Your task to perform on an android device: turn off location Image 0: 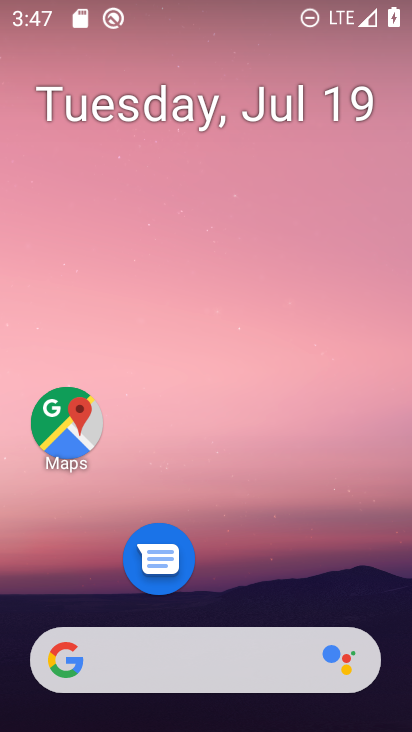
Step 0: drag from (260, 653) to (401, 1)
Your task to perform on an android device: turn off location Image 1: 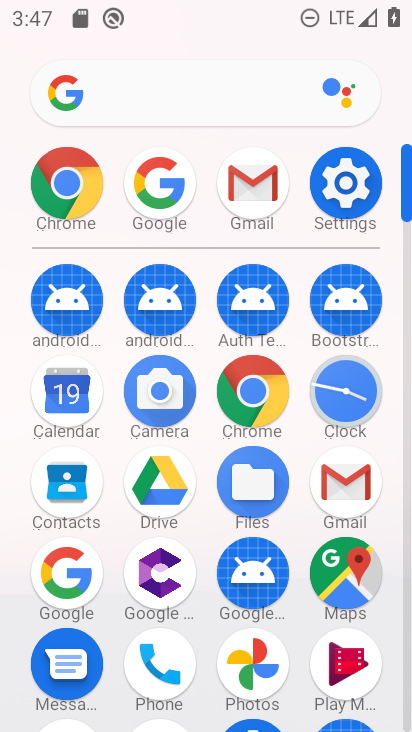
Step 1: click (348, 201)
Your task to perform on an android device: turn off location Image 2: 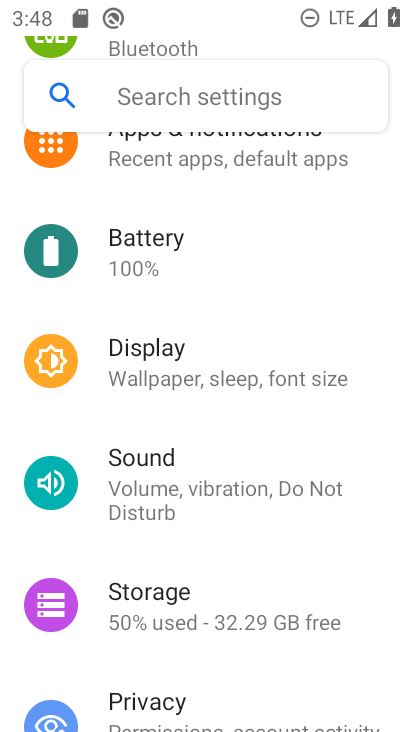
Step 2: drag from (224, 510) to (312, 174)
Your task to perform on an android device: turn off location Image 3: 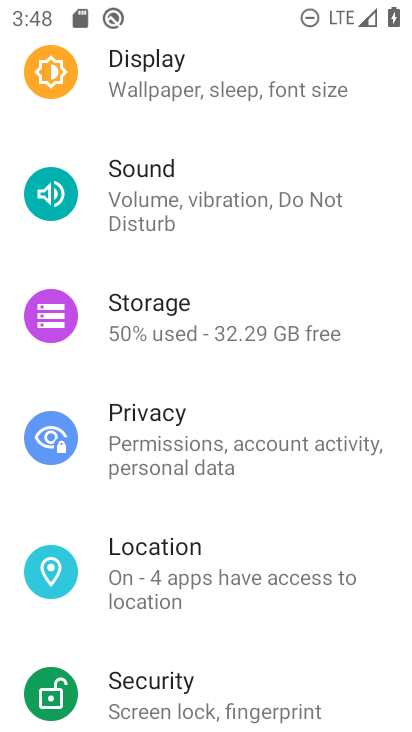
Step 3: click (243, 568)
Your task to perform on an android device: turn off location Image 4: 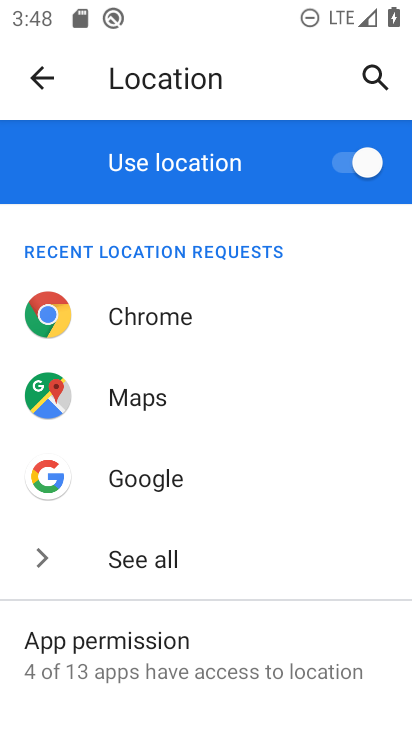
Step 4: click (337, 178)
Your task to perform on an android device: turn off location Image 5: 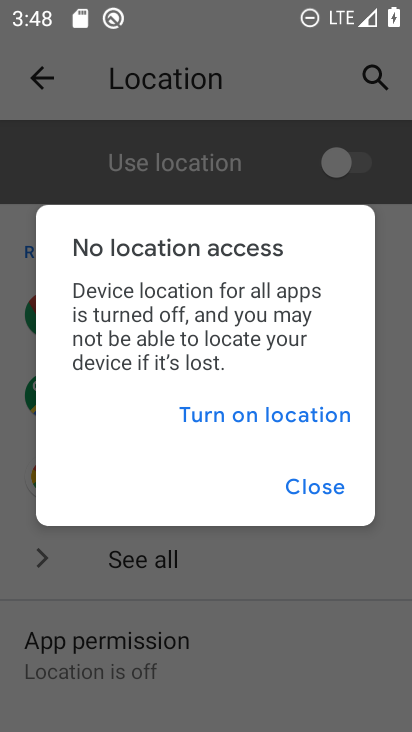
Step 5: click (301, 489)
Your task to perform on an android device: turn off location Image 6: 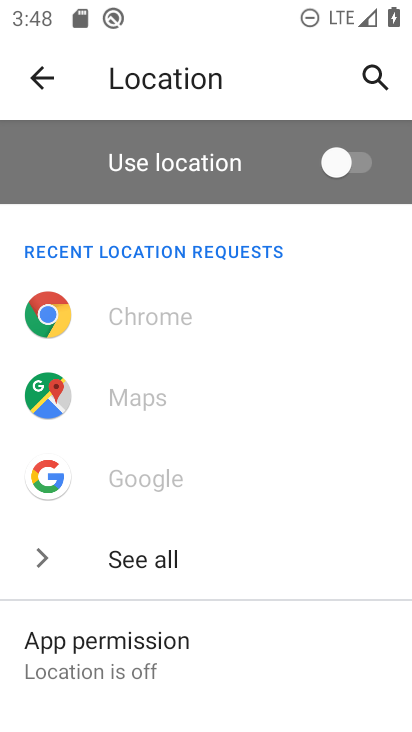
Step 6: task complete